Your task to perform on an android device: turn on javascript in the chrome app Image 0: 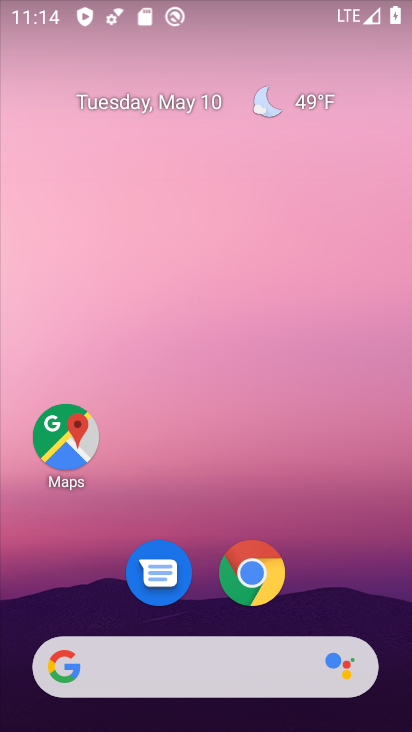
Step 0: press home button
Your task to perform on an android device: turn on javascript in the chrome app Image 1: 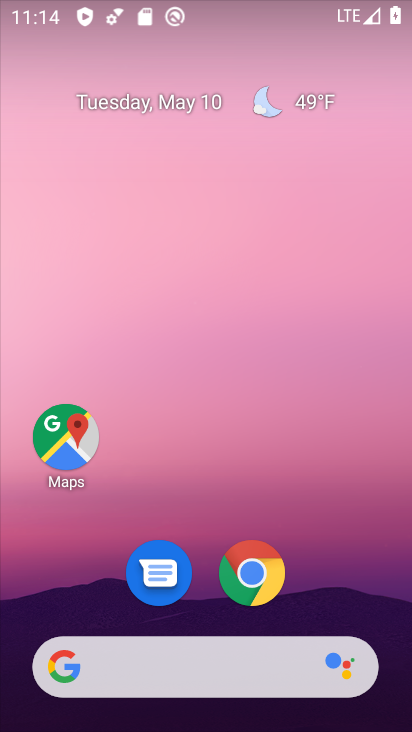
Step 1: drag from (155, 666) to (327, 24)
Your task to perform on an android device: turn on javascript in the chrome app Image 2: 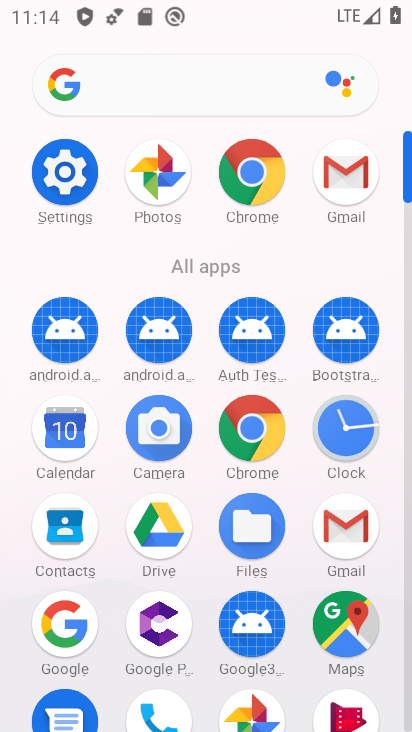
Step 2: click (244, 164)
Your task to perform on an android device: turn on javascript in the chrome app Image 3: 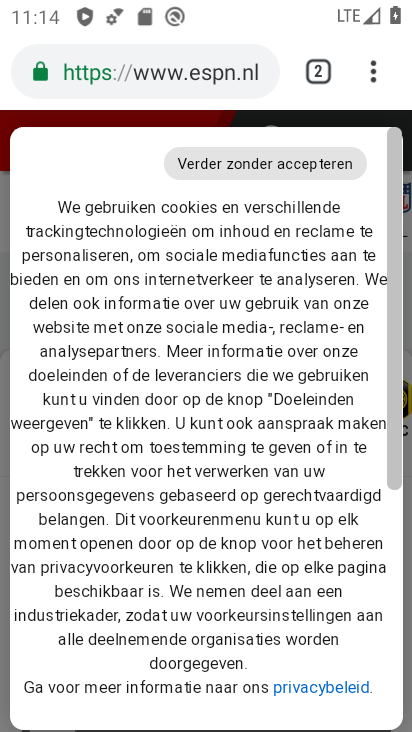
Step 3: drag from (372, 77) to (197, 572)
Your task to perform on an android device: turn on javascript in the chrome app Image 4: 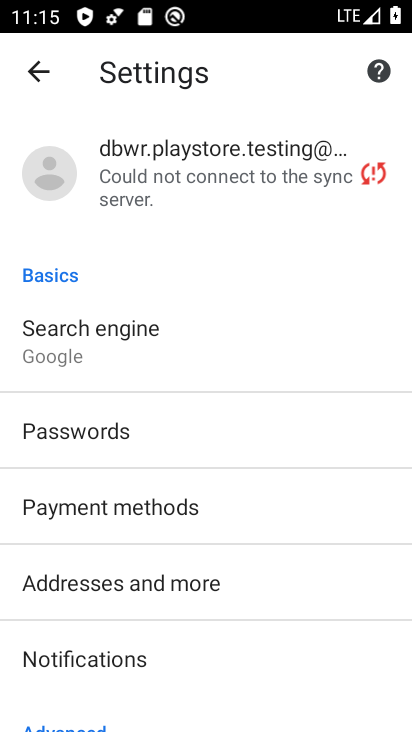
Step 4: drag from (177, 638) to (284, 425)
Your task to perform on an android device: turn on javascript in the chrome app Image 5: 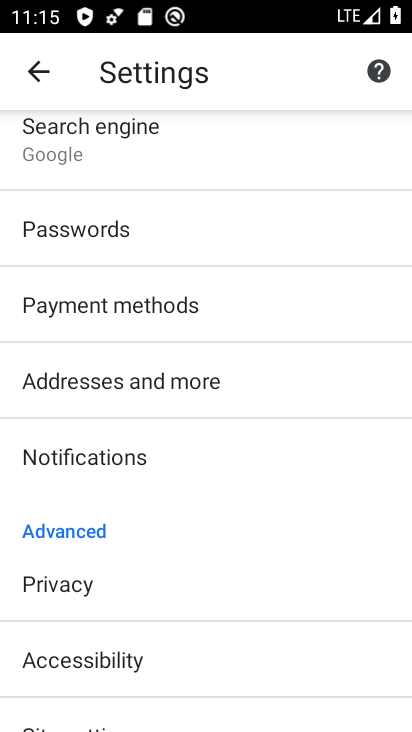
Step 5: drag from (181, 556) to (321, 227)
Your task to perform on an android device: turn on javascript in the chrome app Image 6: 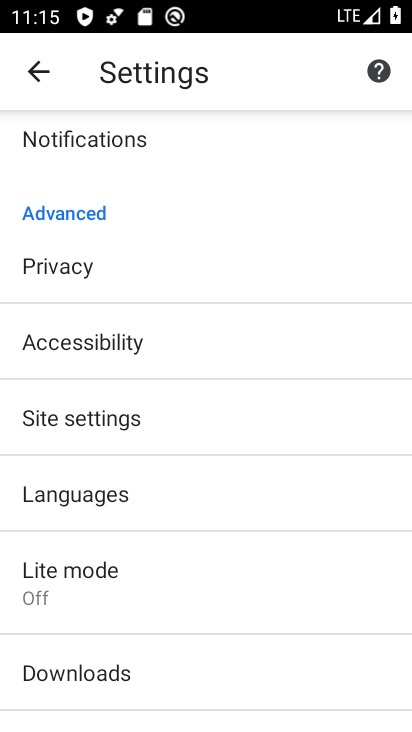
Step 6: click (102, 425)
Your task to perform on an android device: turn on javascript in the chrome app Image 7: 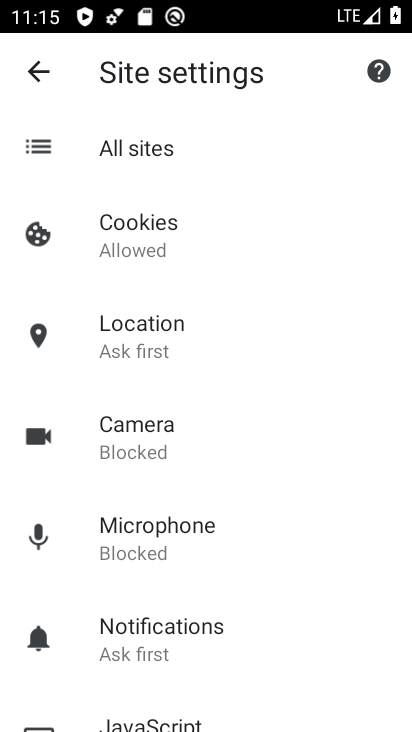
Step 7: drag from (213, 597) to (329, 221)
Your task to perform on an android device: turn on javascript in the chrome app Image 8: 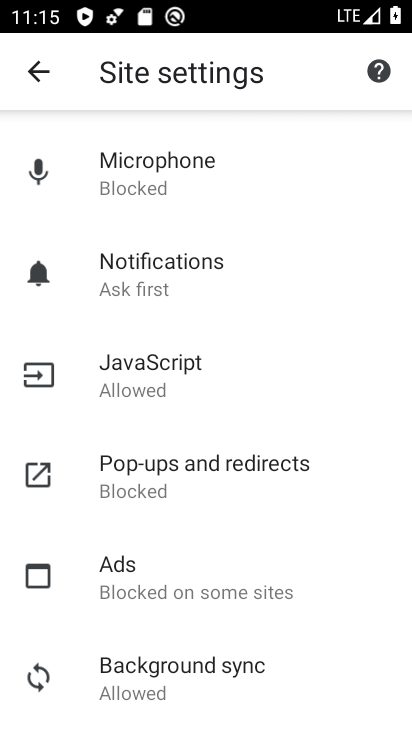
Step 8: click (167, 494)
Your task to perform on an android device: turn on javascript in the chrome app Image 9: 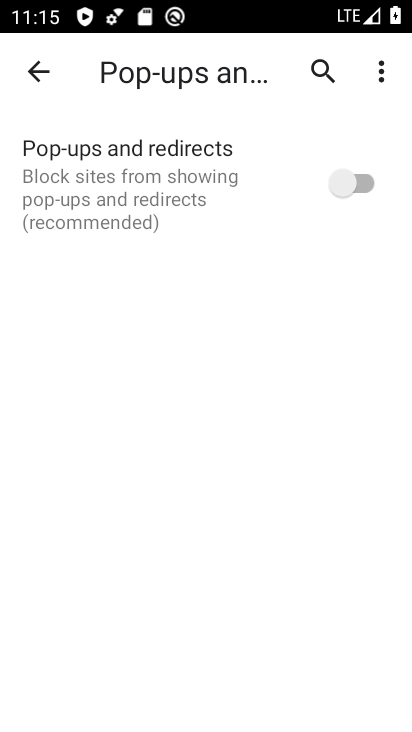
Step 9: click (25, 74)
Your task to perform on an android device: turn on javascript in the chrome app Image 10: 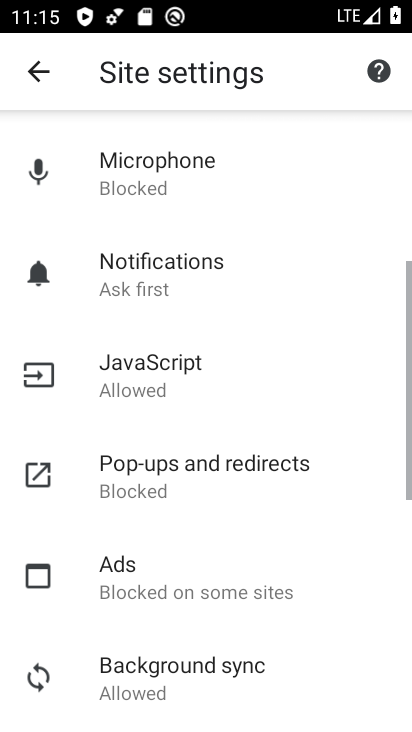
Step 10: click (152, 390)
Your task to perform on an android device: turn on javascript in the chrome app Image 11: 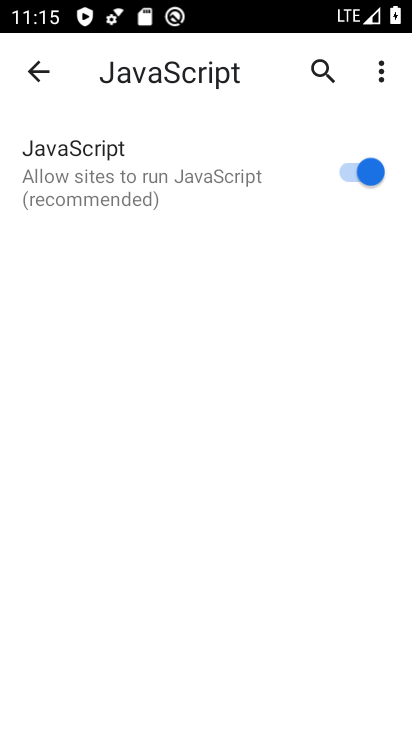
Step 11: task complete